Your task to perform on an android device: open wifi settings Image 0: 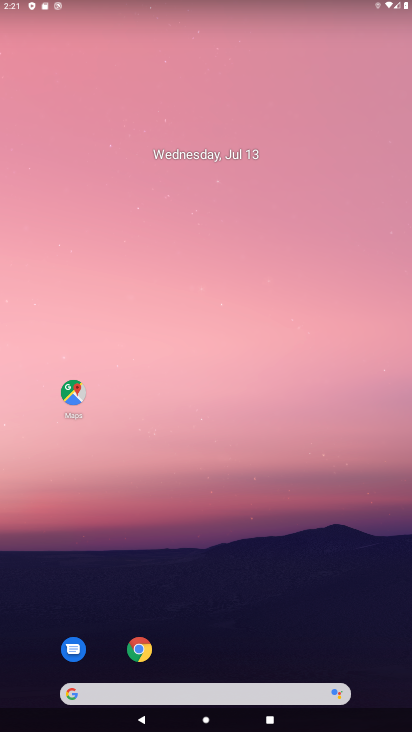
Step 0: drag from (235, 591) to (185, 111)
Your task to perform on an android device: open wifi settings Image 1: 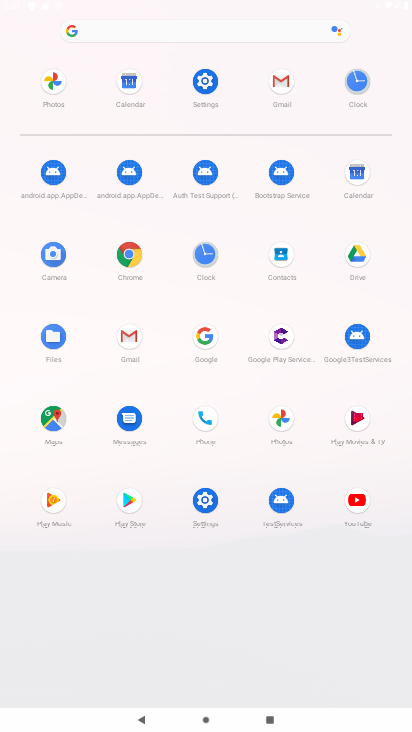
Step 1: click (203, 90)
Your task to perform on an android device: open wifi settings Image 2: 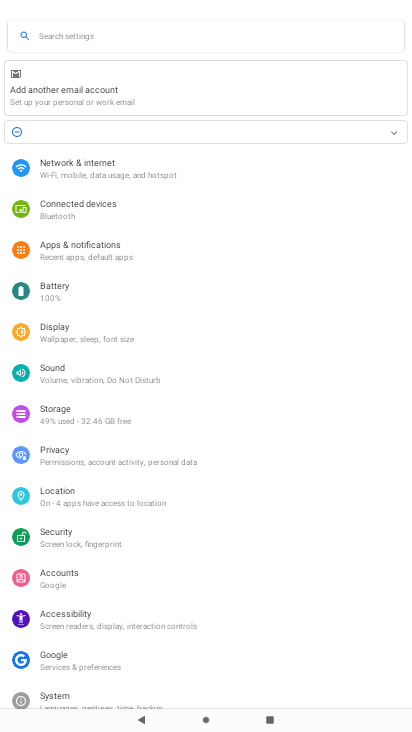
Step 2: click (81, 160)
Your task to perform on an android device: open wifi settings Image 3: 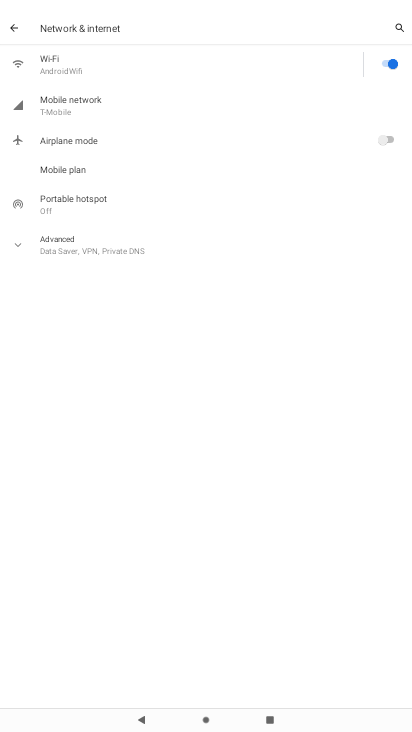
Step 3: click (68, 57)
Your task to perform on an android device: open wifi settings Image 4: 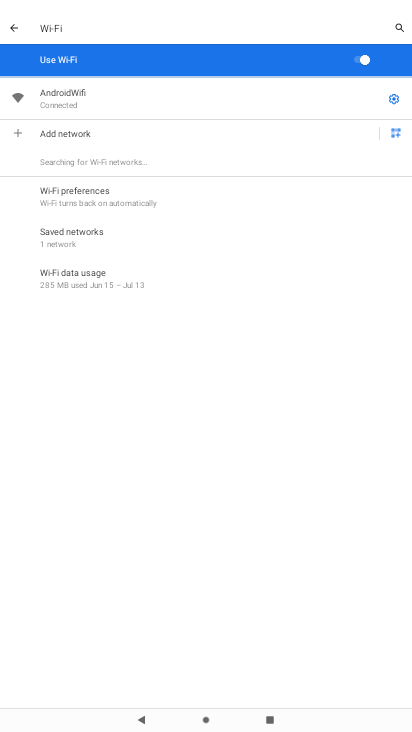
Step 4: task complete